Your task to perform on an android device: Open location settings Image 0: 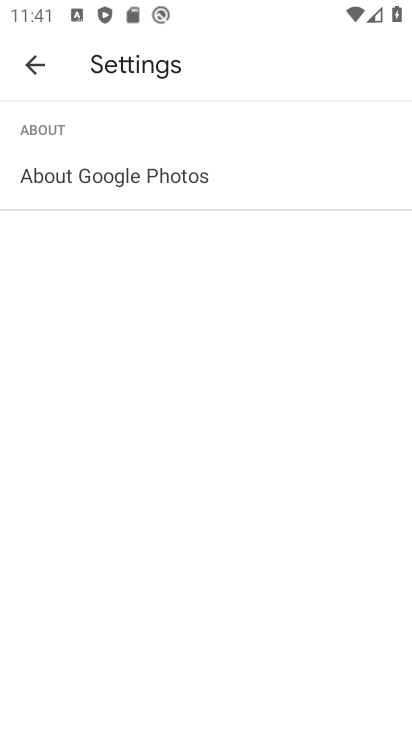
Step 0: press home button
Your task to perform on an android device: Open location settings Image 1: 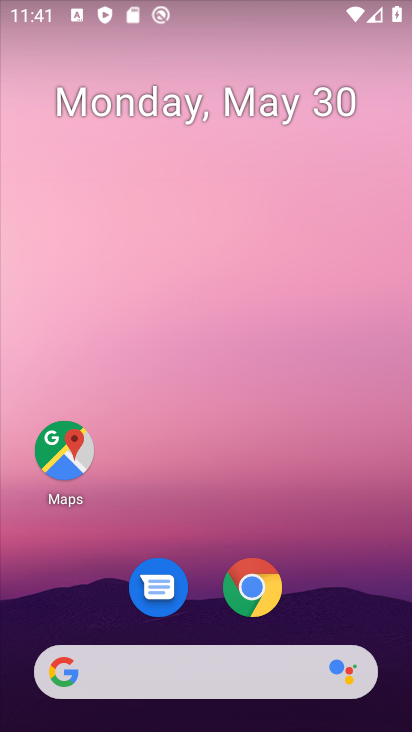
Step 1: drag from (109, 608) to (153, 167)
Your task to perform on an android device: Open location settings Image 2: 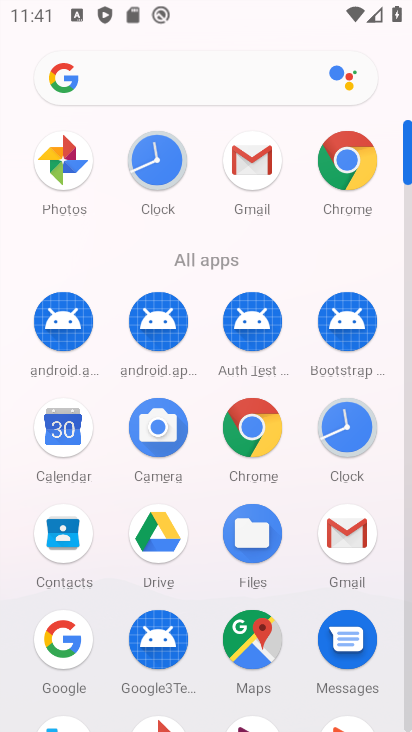
Step 2: drag from (225, 629) to (307, 174)
Your task to perform on an android device: Open location settings Image 3: 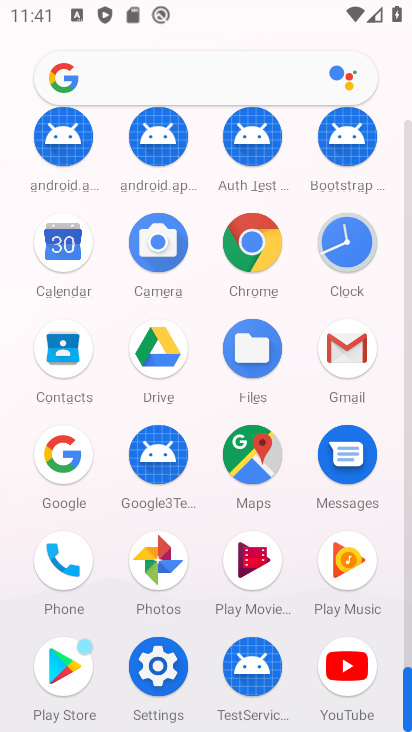
Step 3: click (143, 670)
Your task to perform on an android device: Open location settings Image 4: 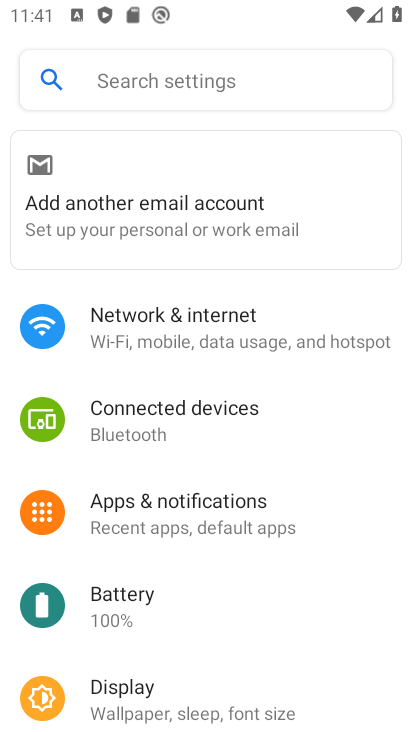
Step 4: drag from (143, 670) to (256, 252)
Your task to perform on an android device: Open location settings Image 5: 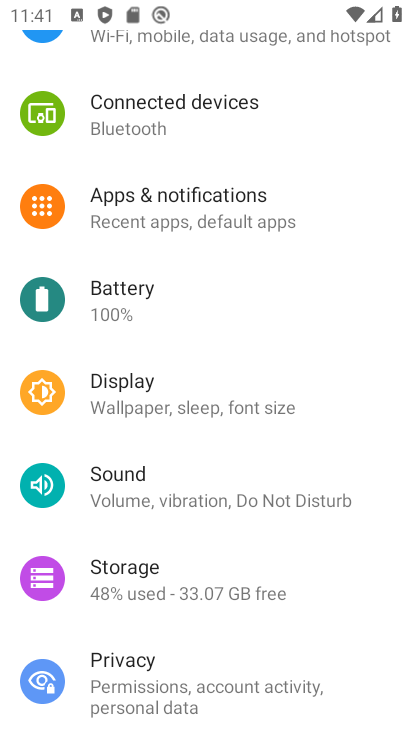
Step 5: drag from (173, 583) to (215, 446)
Your task to perform on an android device: Open location settings Image 6: 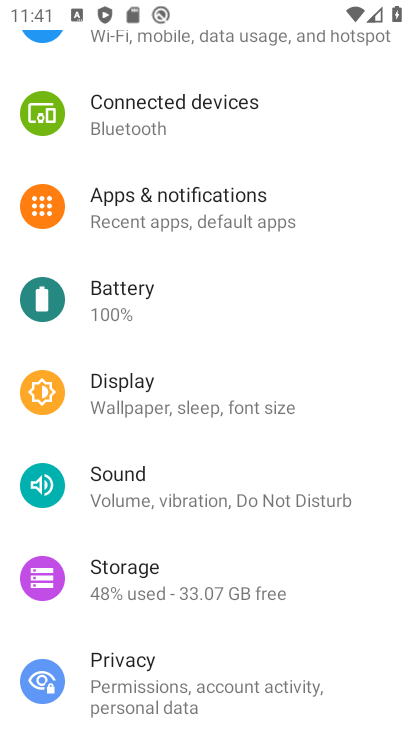
Step 6: drag from (205, 624) to (278, 280)
Your task to perform on an android device: Open location settings Image 7: 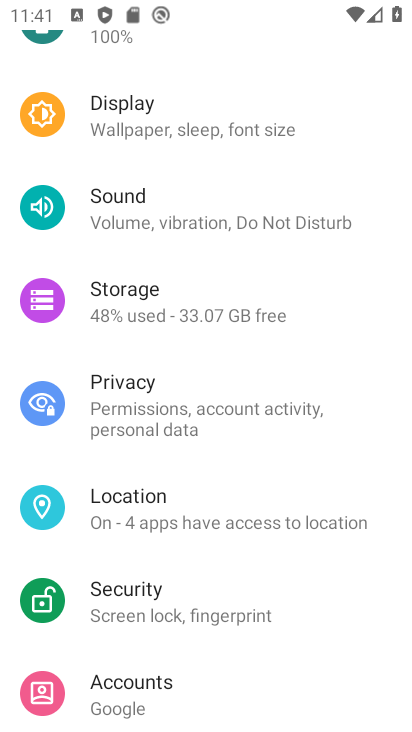
Step 7: click (149, 475)
Your task to perform on an android device: Open location settings Image 8: 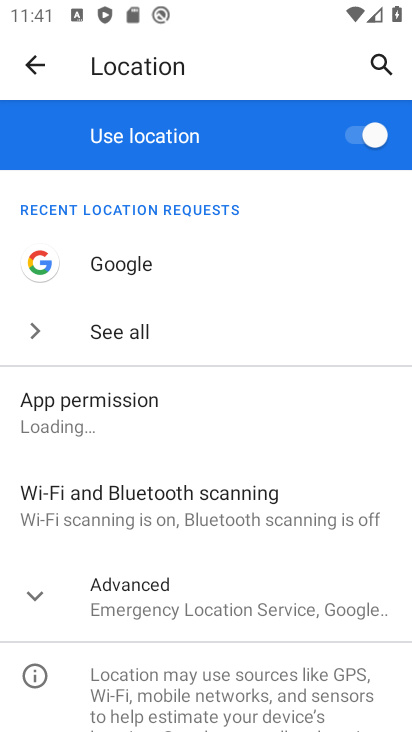
Step 8: task complete